Your task to perform on an android device: toggle javascript in the chrome app Image 0: 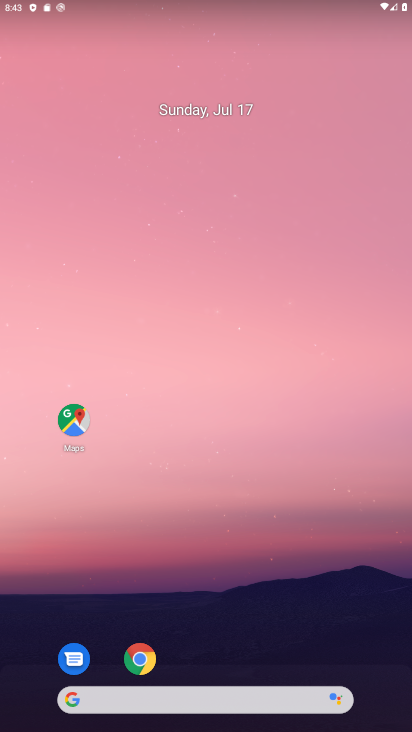
Step 0: click (144, 654)
Your task to perform on an android device: toggle javascript in the chrome app Image 1: 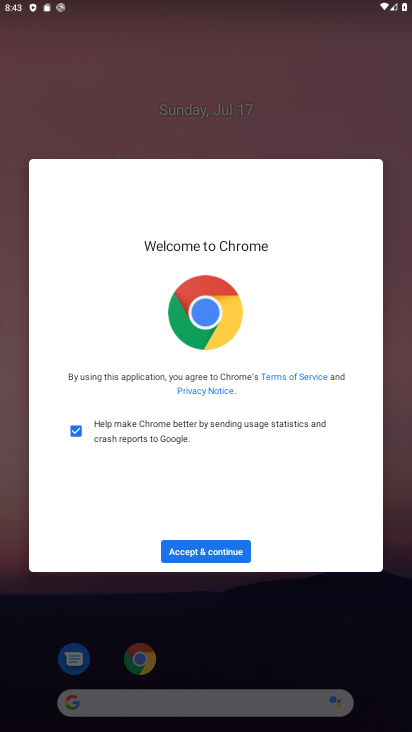
Step 1: click (215, 544)
Your task to perform on an android device: toggle javascript in the chrome app Image 2: 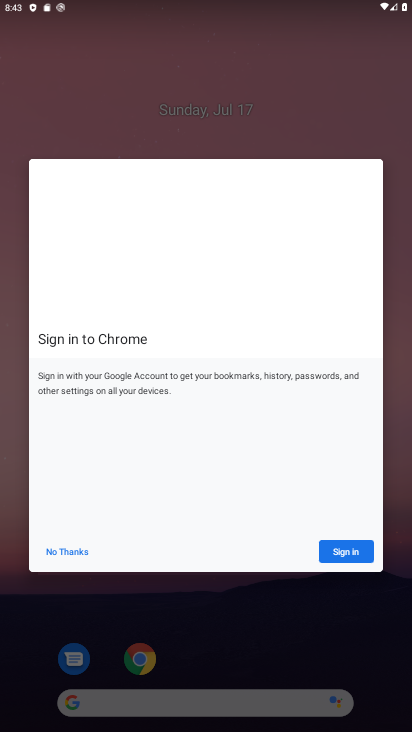
Step 2: click (55, 546)
Your task to perform on an android device: toggle javascript in the chrome app Image 3: 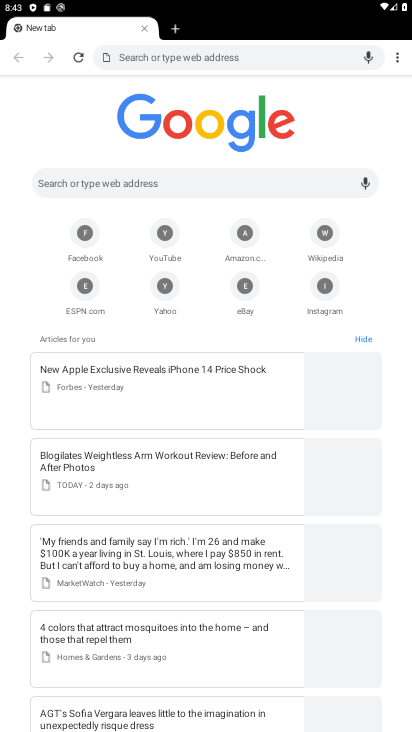
Step 3: click (397, 58)
Your task to perform on an android device: toggle javascript in the chrome app Image 4: 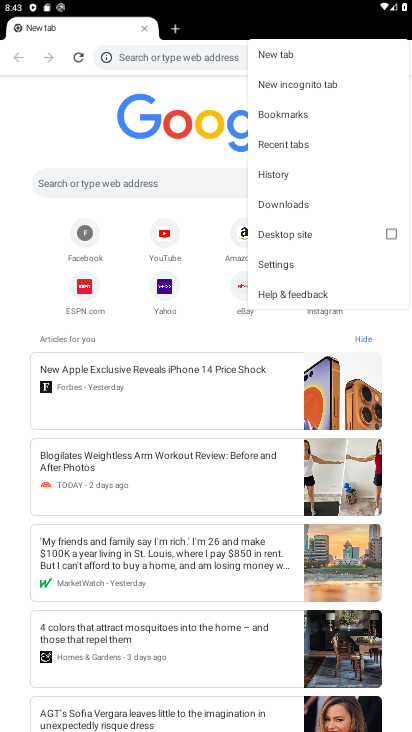
Step 4: click (284, 264)
Your task to perform on an android device: toggle javascript in the chrome app Image 5: 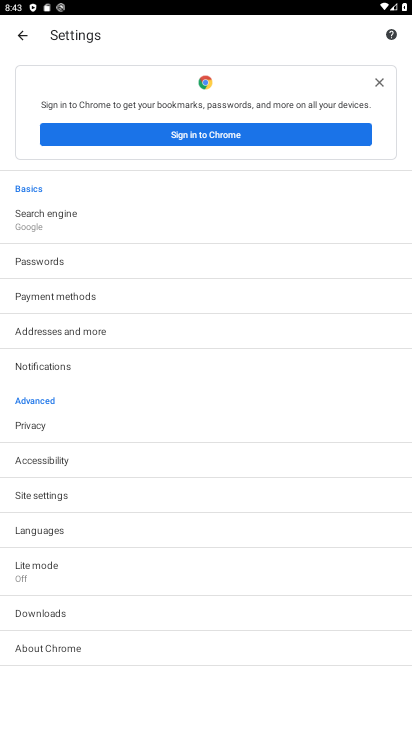
Step 5: click (49, 488)
Your task to perform on an android device: toggle javascript in the chrome app Image 6: 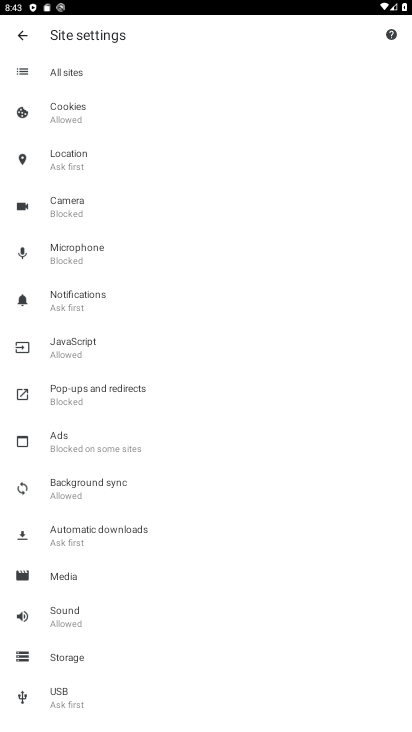
Step 6: click (68, 338)
Your task to perform on an android device: toggle javascript in the chrome app Image 7: 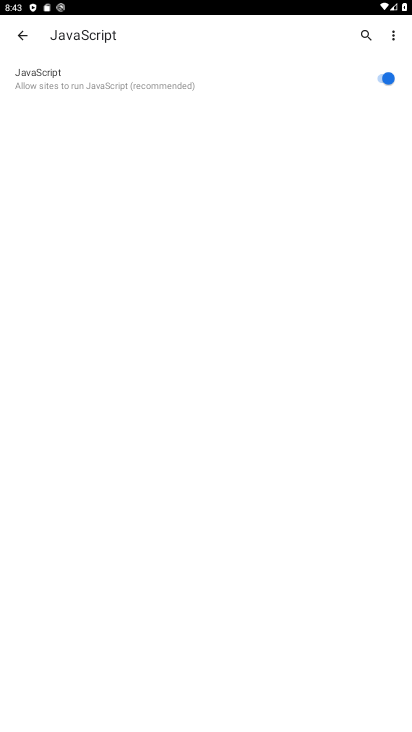
Step 7: click (396, 75)
Your task to perform on an android device: toggle javascript in the chrome app Image 8: 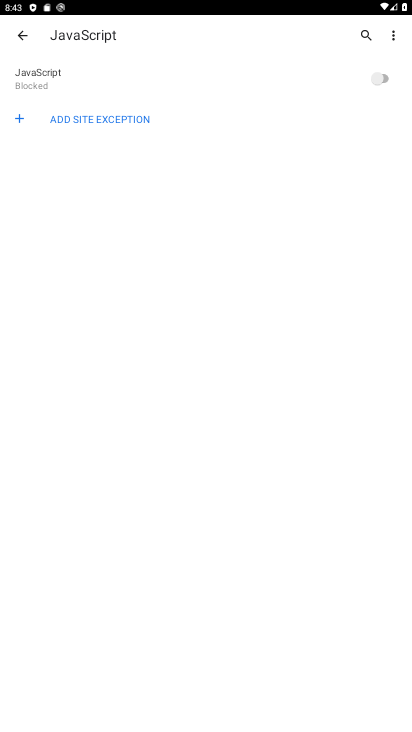
Step 8: task complete